Your task to perform on an android device: Go to Amazon Image 0: 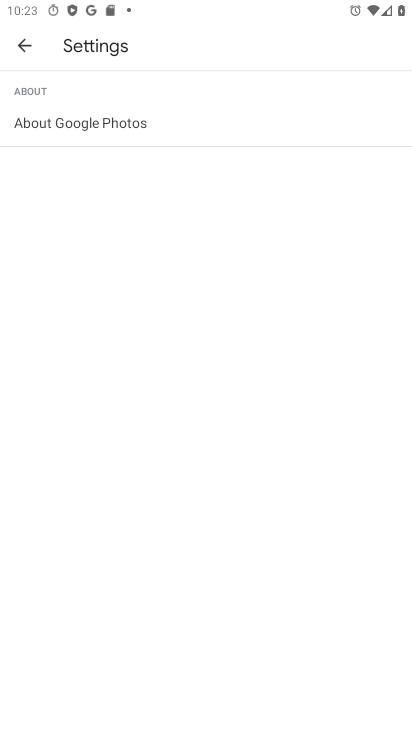
Step 0: press home button
Your task to perform on an android device: Go to Amazon Image 1: 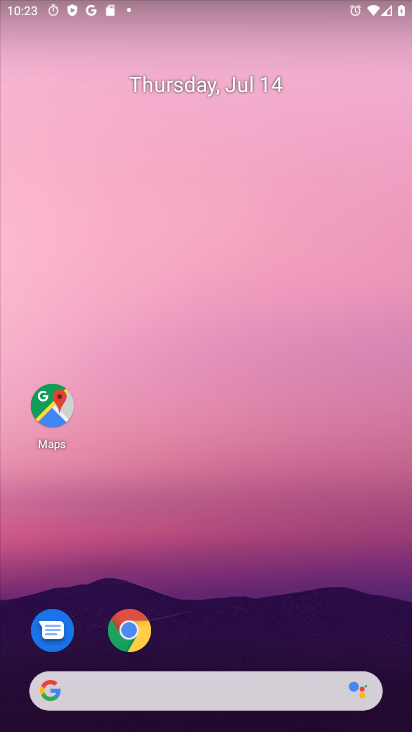
Step 1: click (124, 701)
Your task to perform on an android device: Go to Amazon Image 2: 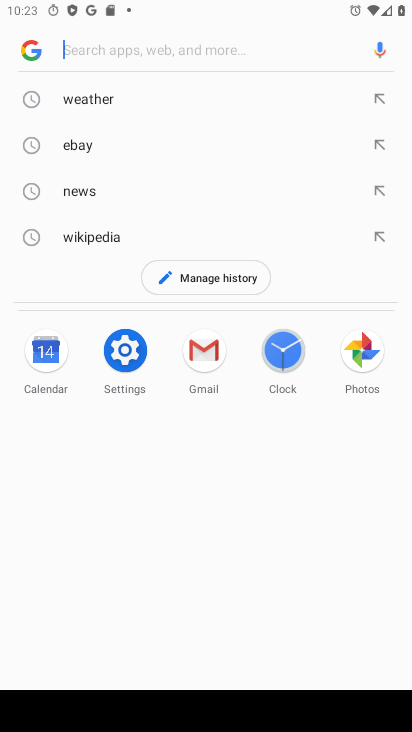
Step 2: type "Amazon"
Your task to perform on an android device: Go to Amazon Image 3: 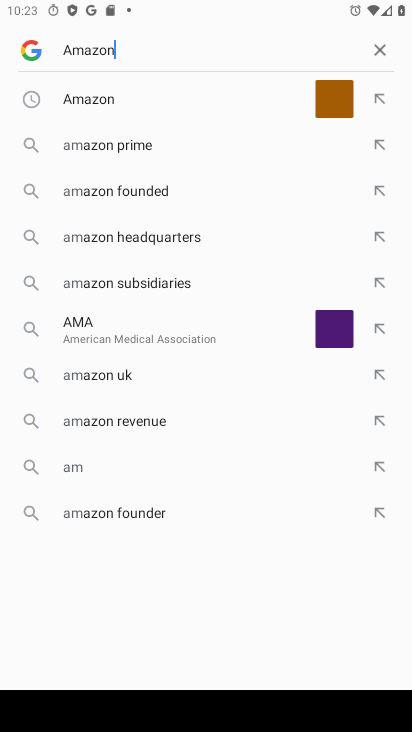
Step 3: type ""
Your task to perform on an android device: Go to Amazon Image 4: 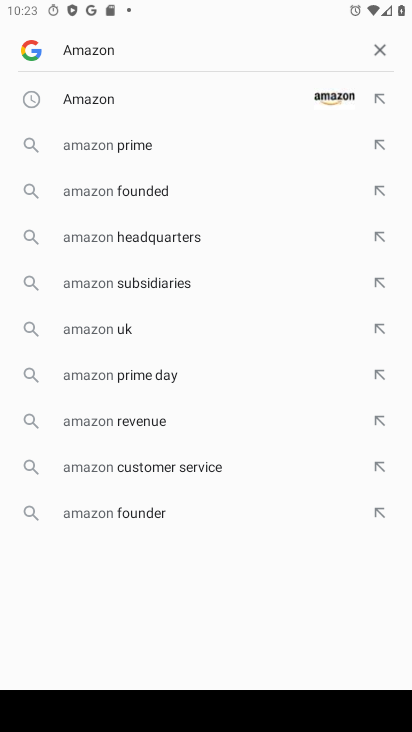
Step 4: click (89, 93)
Your task to perform on an android device: Go to Amazon Image 5: 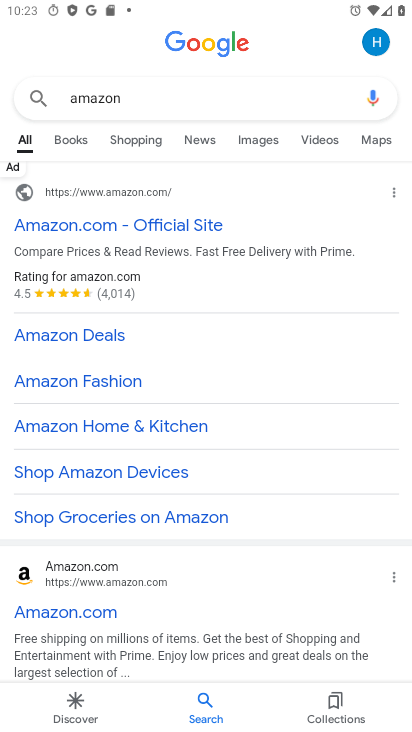
Step 5: task complete